Your task to perform on an android device: turn on priority inbox in the gmail app Image 0: 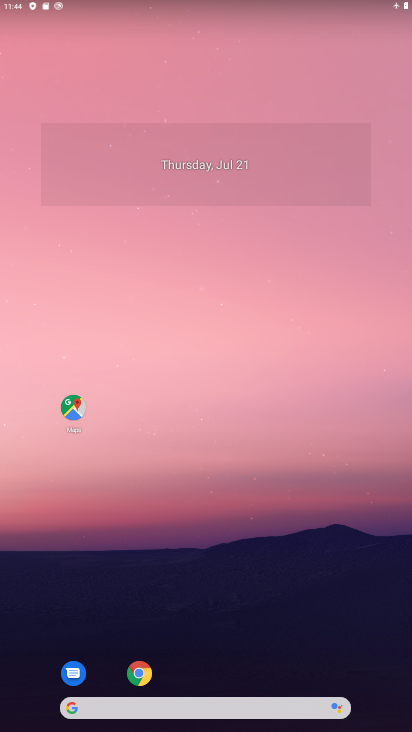
Step 0: drag from (200, 673) to (19, 323)
Your task to perform on an android device: turn on priority inbox in the gmail app Image 1: 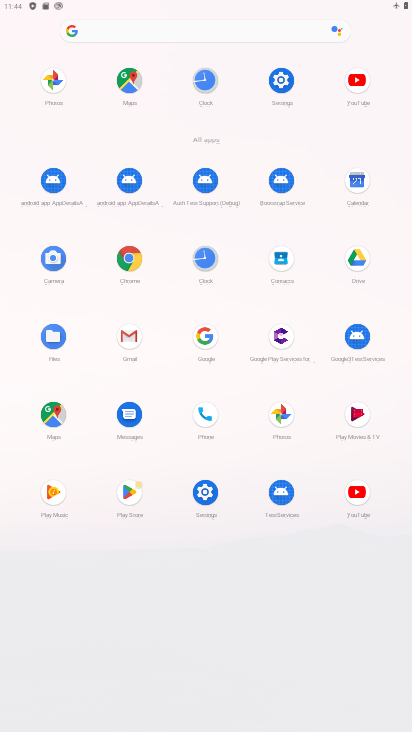
Step 1: click (124, 334)
Your task to perform on an android device: turn on priority inbox in the gmail app Image 2: 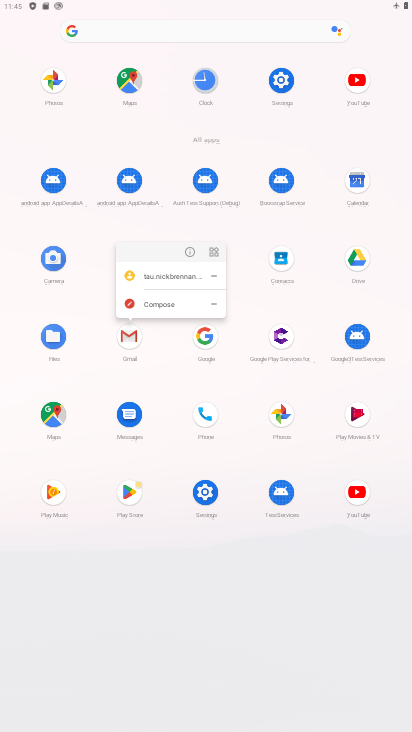
Step 2: click (190, 255)
Your task to perform on an android device: turn on priority inbox in the gmail app Image 3: 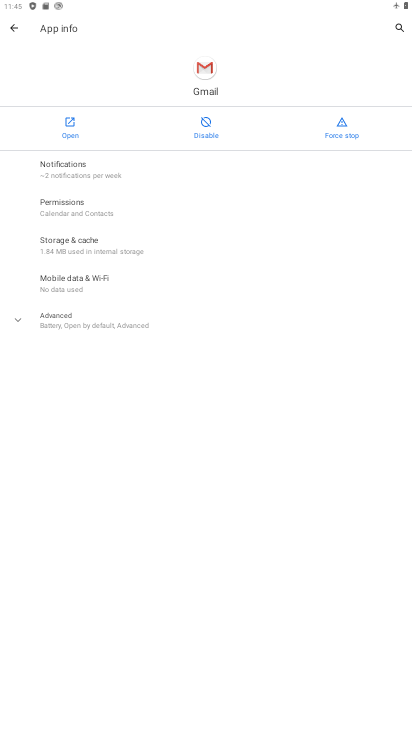
Step 3: click (61, 138)
Your task to perform on an android device: turn on priority inbox in the gmail app Image 4: 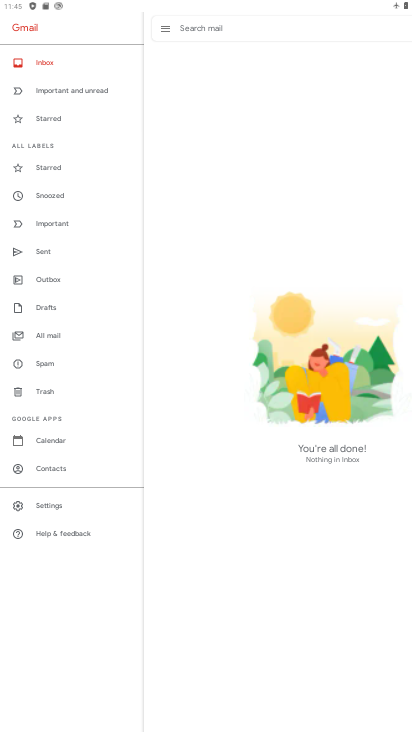
Step 4: click (40, 493)
Your task to perform on an android device: turn on priority inbox in the gmail app Image 5: 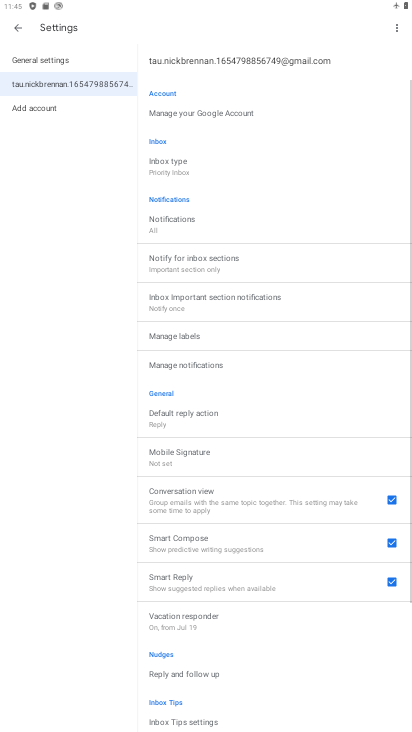
Step 5: click (174, 168)
Your task to perform on an android device: turn on priority inbox in the gmail app Image 6: 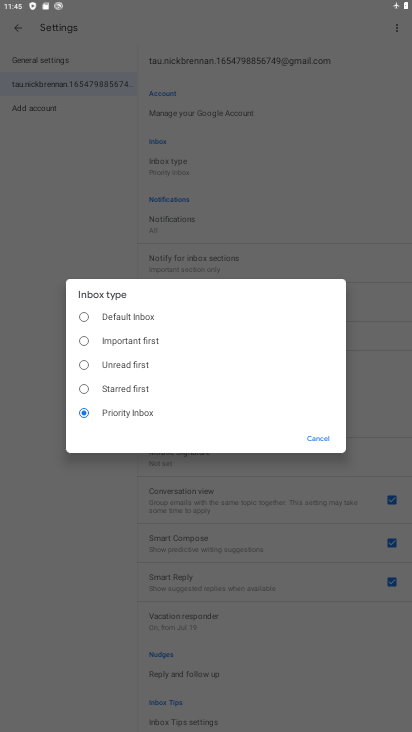
Step 6: click (88, 314)
Your task to perform on an android device: turn on priority inbox in the gmail app Image 7: 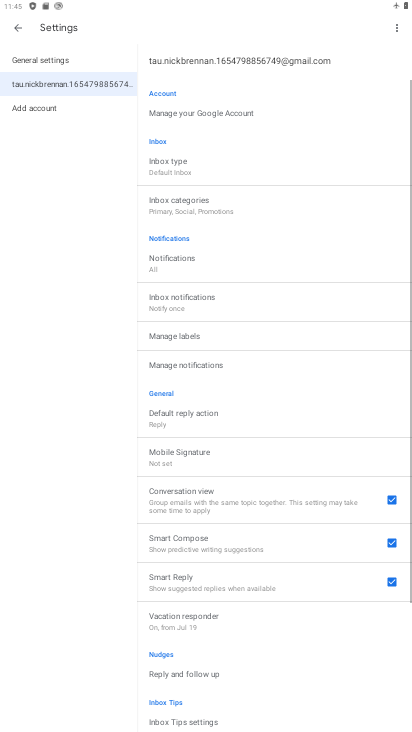
Step 7: click (170, 167)
Your task to perform on an android device: turn on priority inbox in the gmail app Image 8: 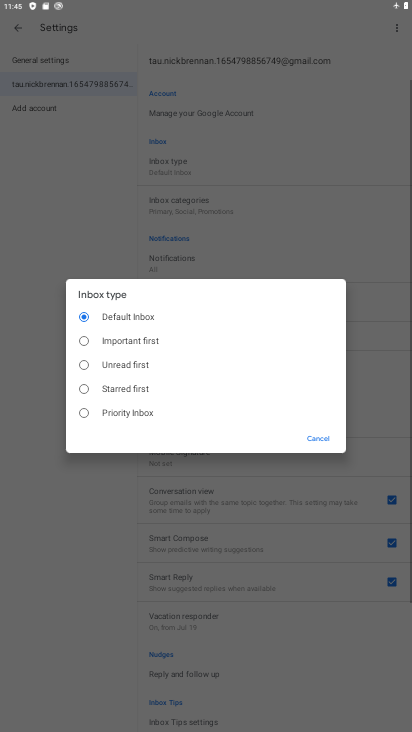
Step 8: click (99, 412)
Your task to perform on an android device: turn on priority inbox in the gmail app Image 9: 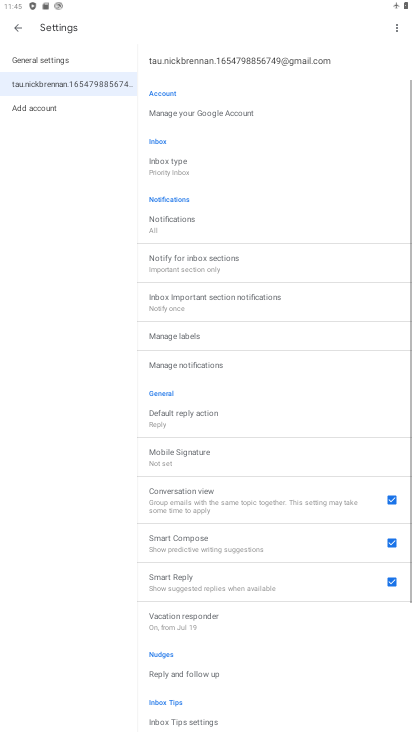
Step 9: task complete